Your task to perform on an android device: turn on data saver in the chrome app Image 0: 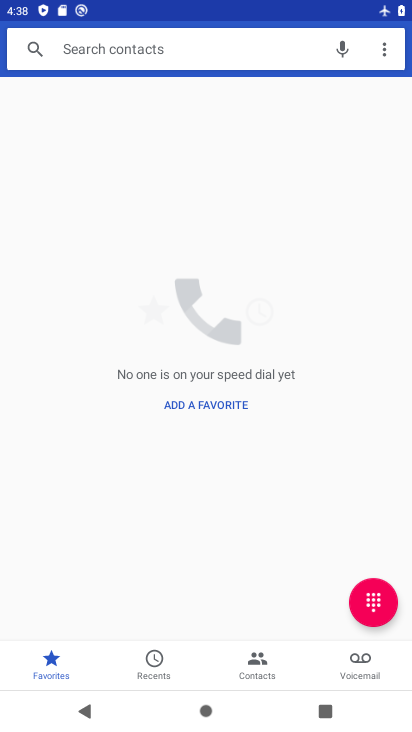
Step 0: press back button
Your task to perform on an android device: turn on data saver in the chrome app Image 1: 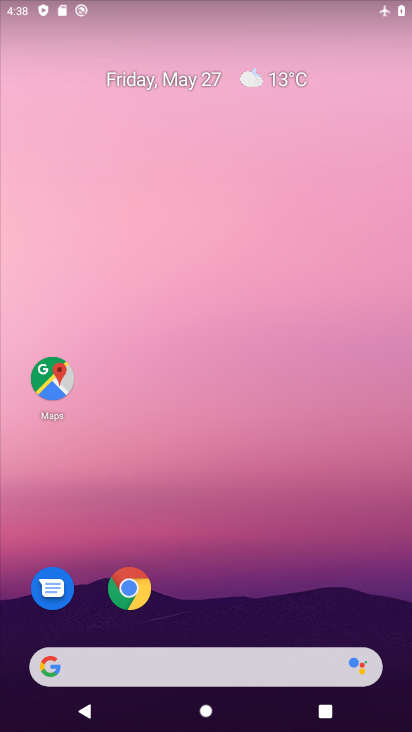
Step 1: click (117, 584)
Your task to perform on an android device: turn on data saver in the chrome app Image 2: 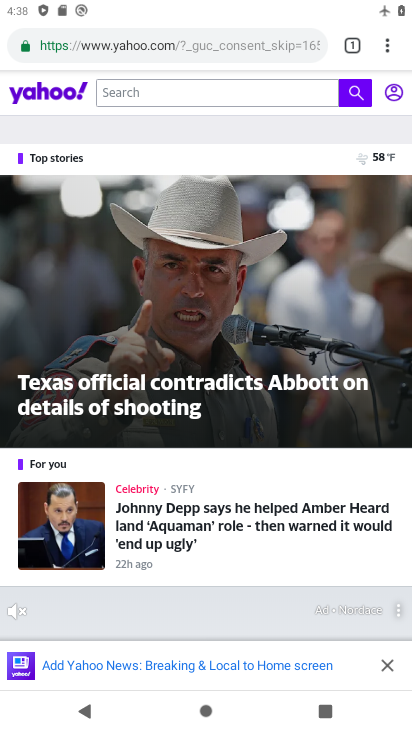
Step 2: drag from (383, 45) to (231, 511)
Your task to perform on an android device: turn on data saver in the chrome app Image 3: 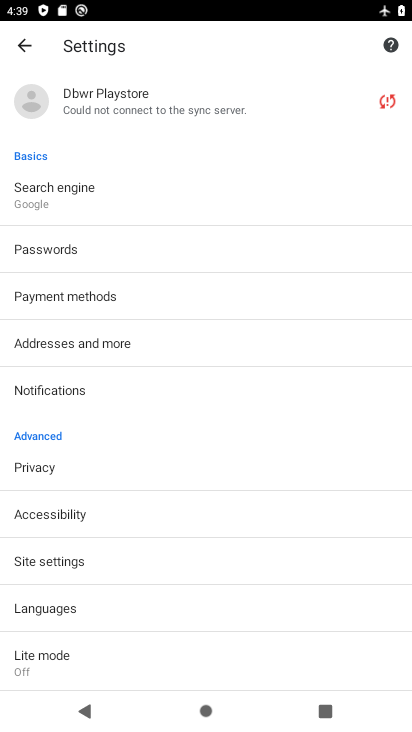
Step 3: click (42, 660)
Your task to perform on an android device: turn on data saver in the chrome app Image 4: 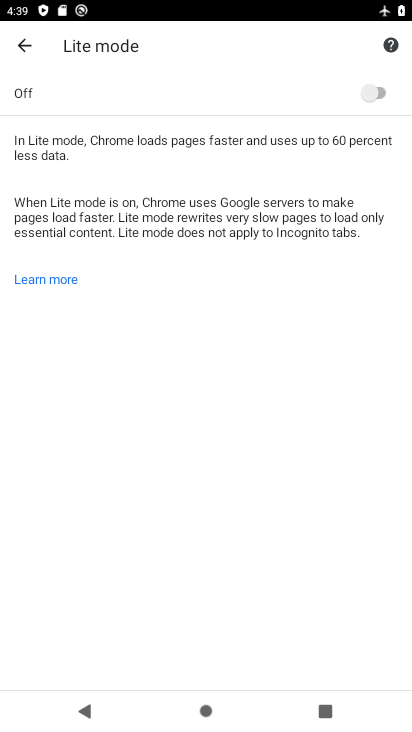
Step 4: click (373, 87)
Your task to perform on an android device: turn on data saver in the chrome app Image 5: 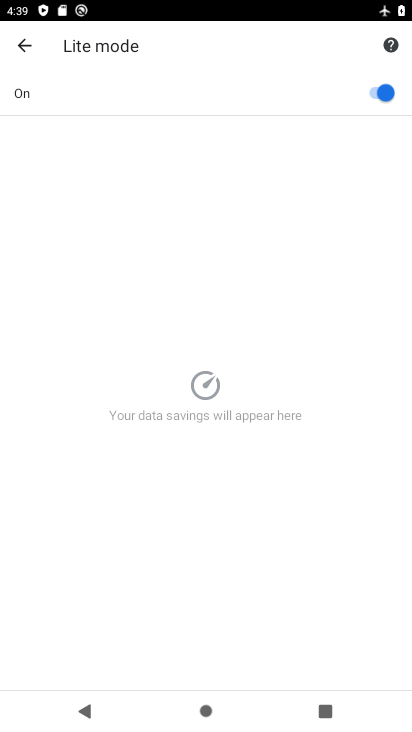
Step 5: task complete